Your task to perform on an android device: change text size in settings app Image 0: 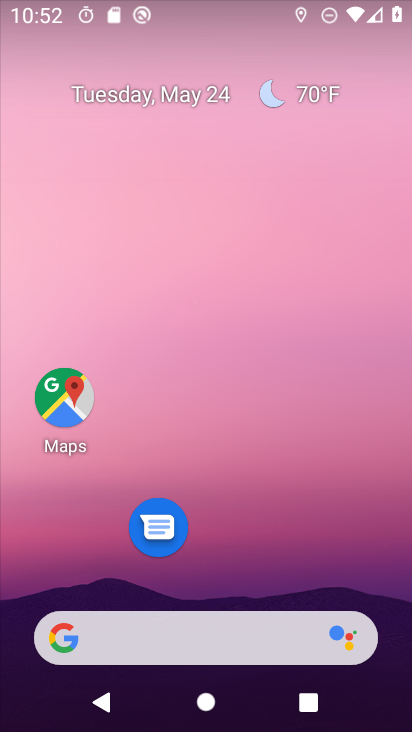
Step 0: drag from (253, 516) to (229, 59)
Your task to perform on an android device: change text size in settings app Image 1: 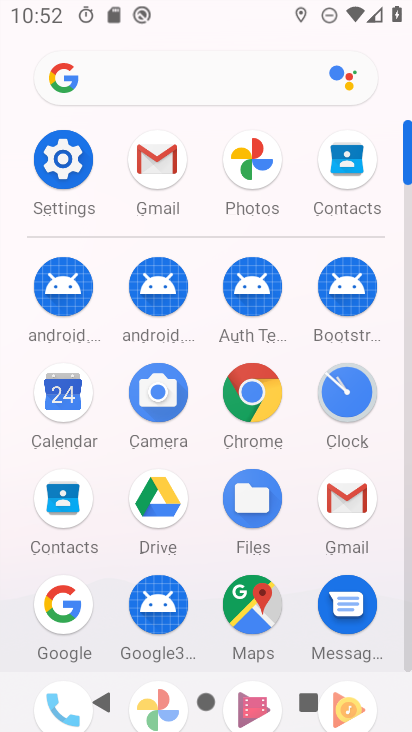
Step 1: click (44, 162)
Your task to perform on an android device: change text size in settings app Image 2: 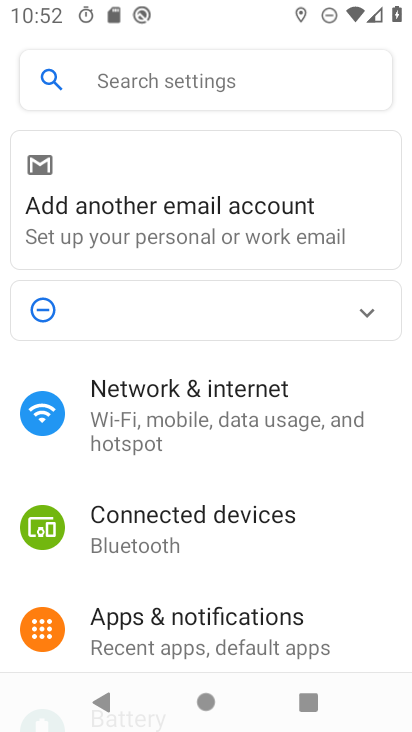
Step 2: drag from (252, 537) to (236, 110)
Your task to perform on an android device: change text size in settings app Image 3: 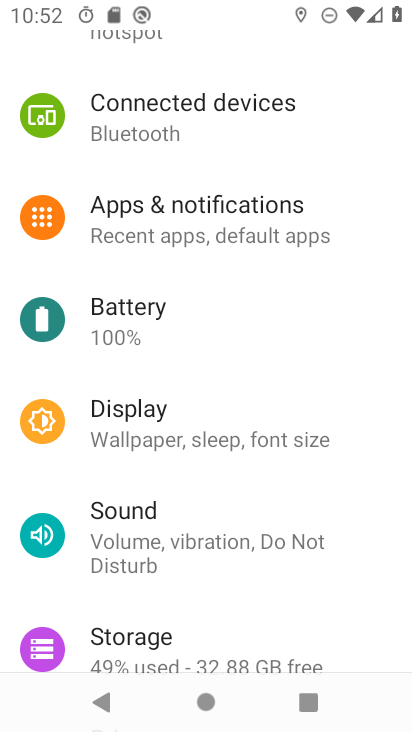
Step 3: click (219, 417)
Your task to perform on an android device: change text size in settings app Image 4: 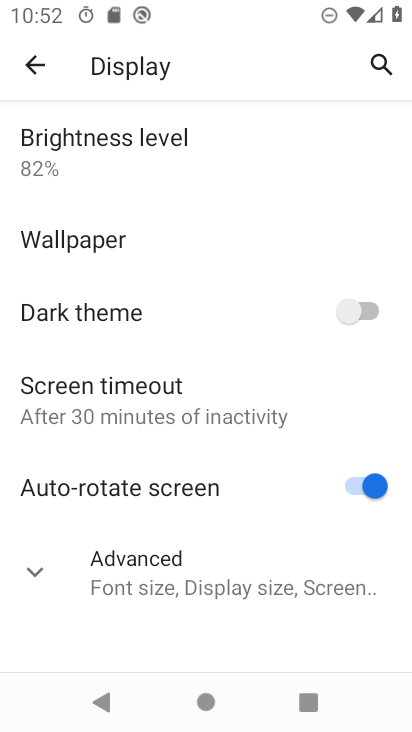
Step 4: click (190, 573)
Your task to perform on an android device: change text size in settings app Image 5: 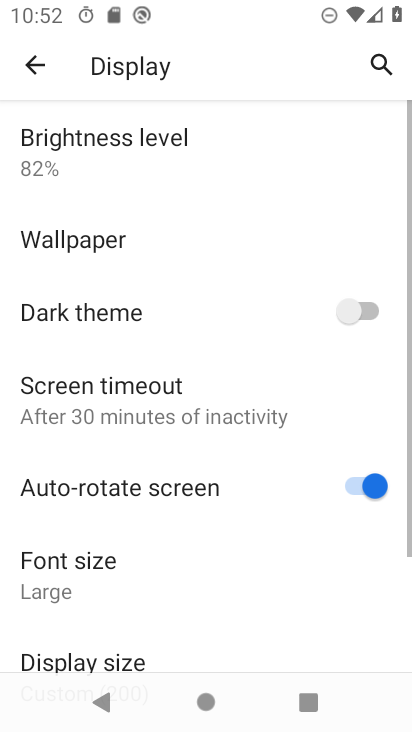
Step 5: click (109, 574)
Your task to perform on an android device: change text size in settings app Image 6: 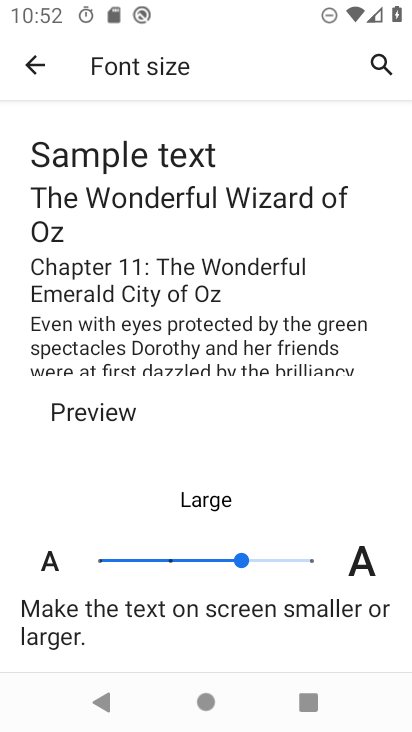
Step 6: task complete